Your task to perform on an android device: toggle pop-ups in chrome Image 0: 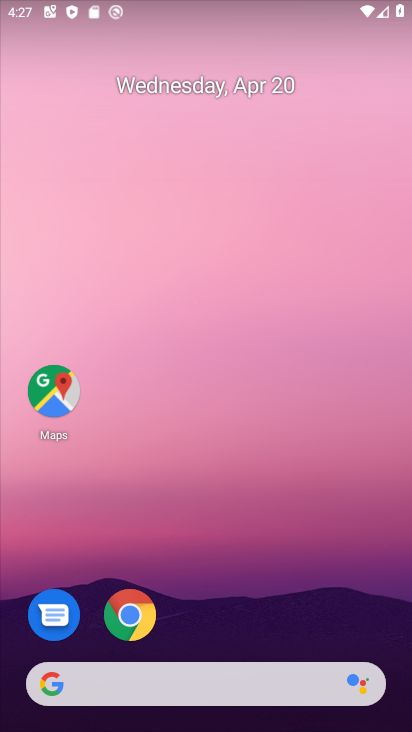
Step 0: click (138, 618)
Your task to perform on an android device: toggle pop-ups in chrome Image 1: 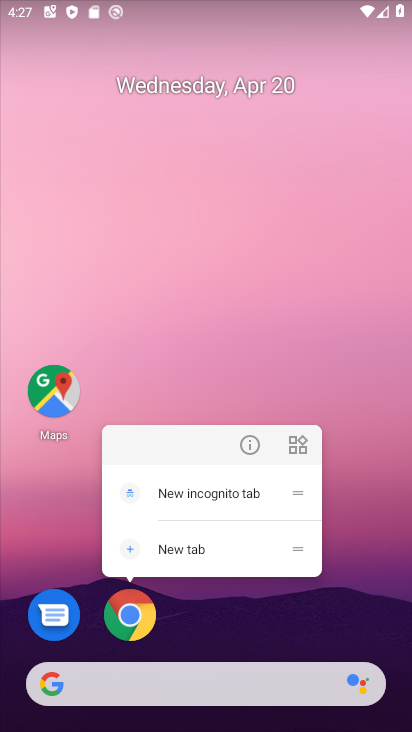
Step 1: click (138, 620)
Your task to perform on an android device: toggle pop-ups in chrome Image 2: 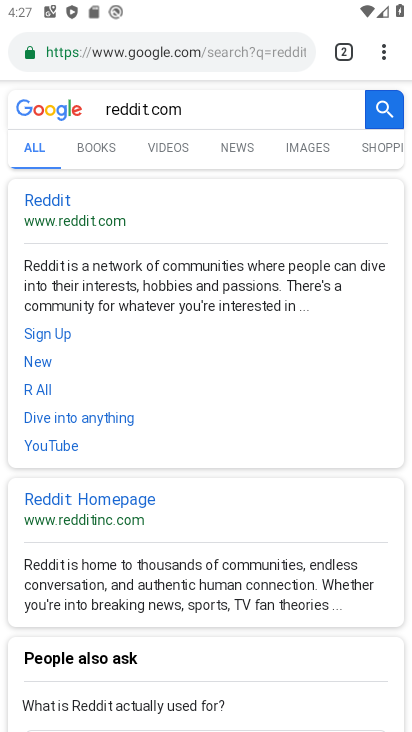
Step 2: click (381, 60)
Your task to perform on an android device: toggle pop-ups in chrome Image 3: 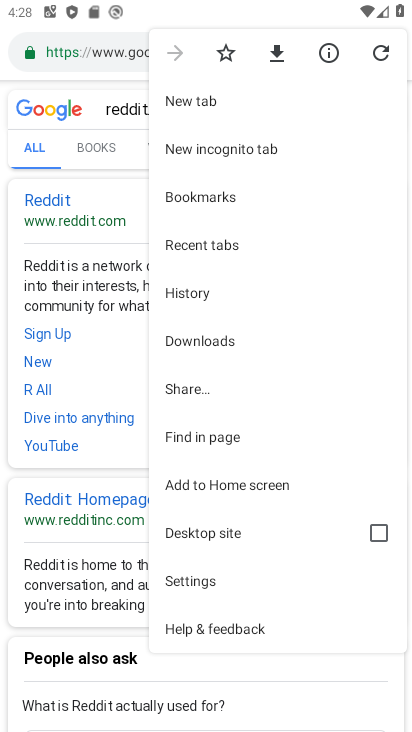
Step 3: click (210, 587)
Your task to perform on an android device: toggle pop-ups in chrome Image 4: 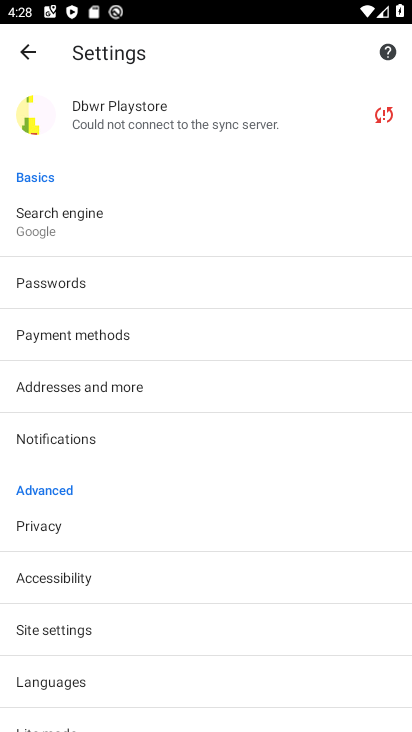
Step 4: click (61, 631)
Your task to perform on an android device: toggle pop-ups in chrome Image 5: 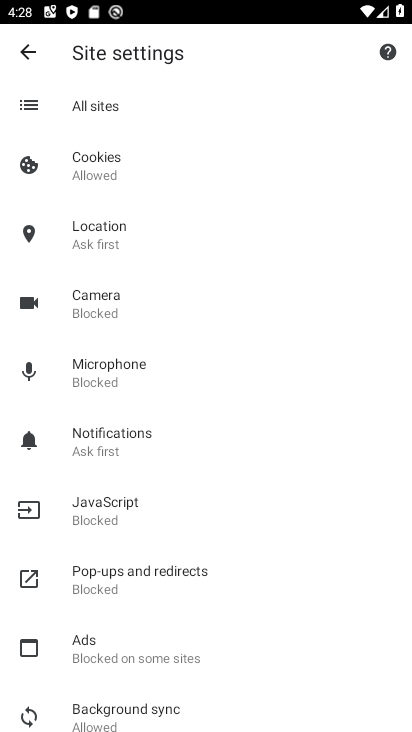
Step 5: click (102, 582)
Your task to perform on an android device: toggle pop-ups in chrome Image 6: 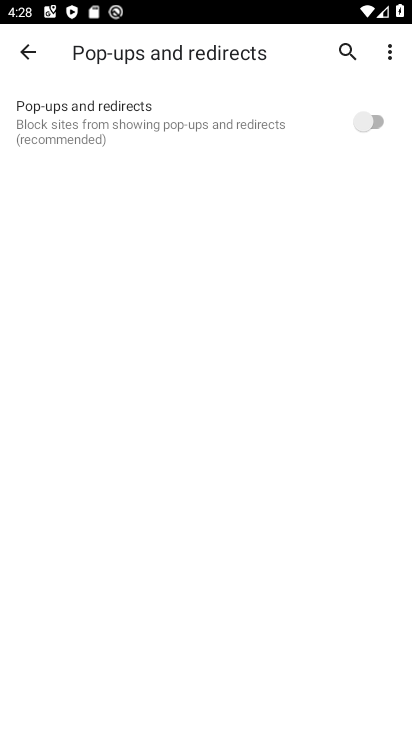
Step 6: click (376, 116)
Your task to perform on an android device: toggle pop-ups in chrome Image 7: 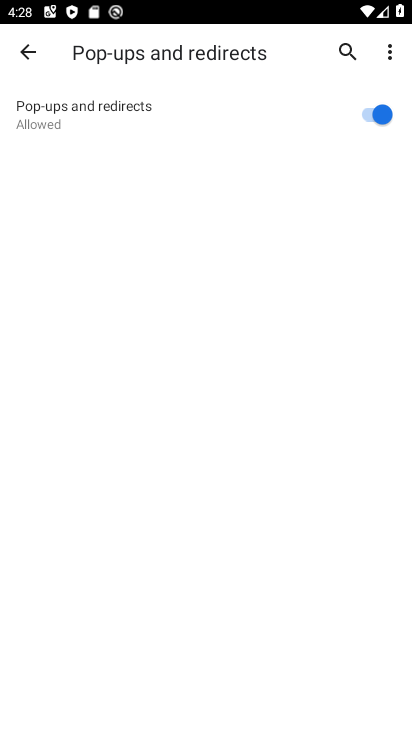
Step 7: task complete